Your task to perform on an android device: toggle airplane mode Image 0: 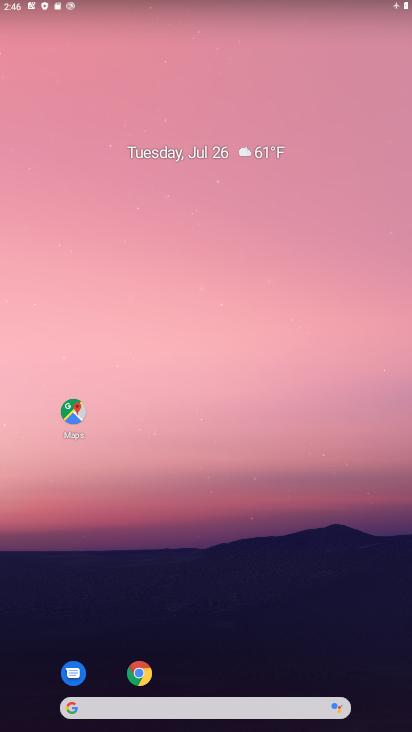
Step 0: drag from (204, 615) to (218, 167)
Your task to perform on an android device: toggle airplane mode Image 1: 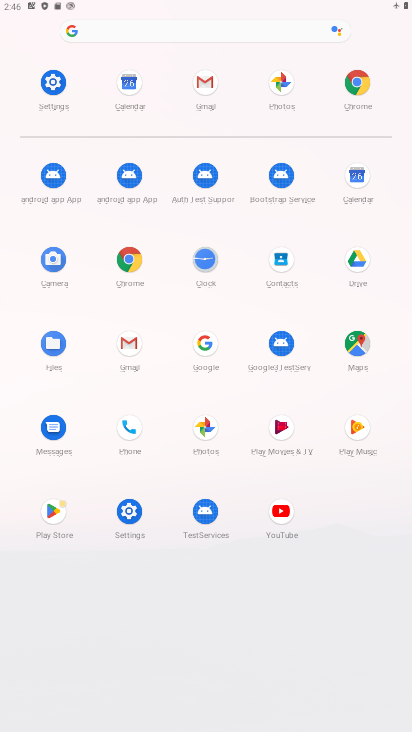
Step 1: click (121, 518)
Your task to perform on an android device: toggle airplane mode Image 2: 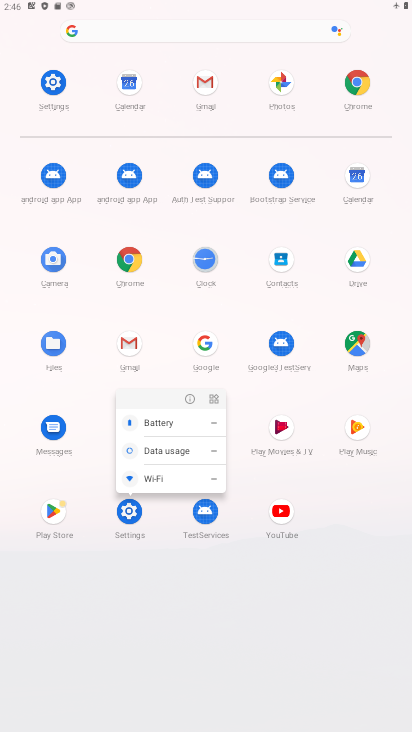
Step 2: click (195, 401)
Your task to perform on an android device: toggle airplane mode Image 3: 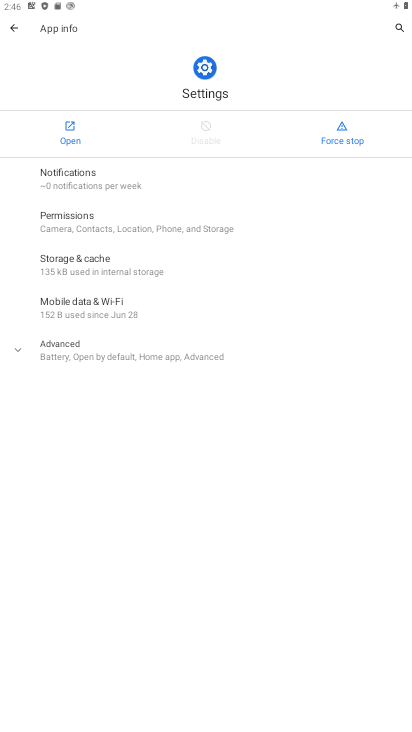
Step 3: click (71, 134)
Your task to perform on an android device: toggle airplane mode Image 4: 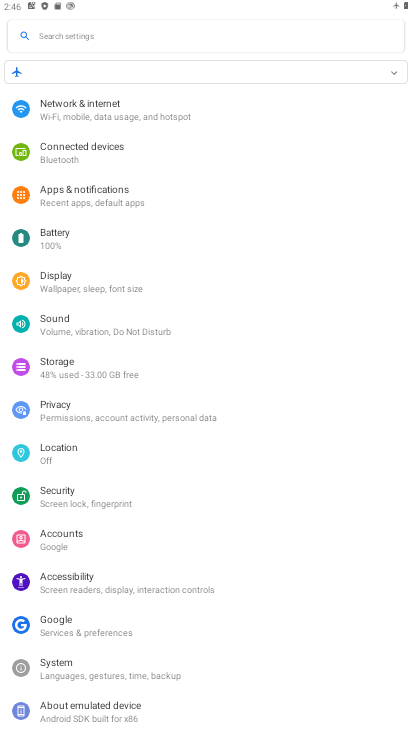
Step 4: click (110, 106)
Your task to perform on an android device: toggle airplane mode Image 5: 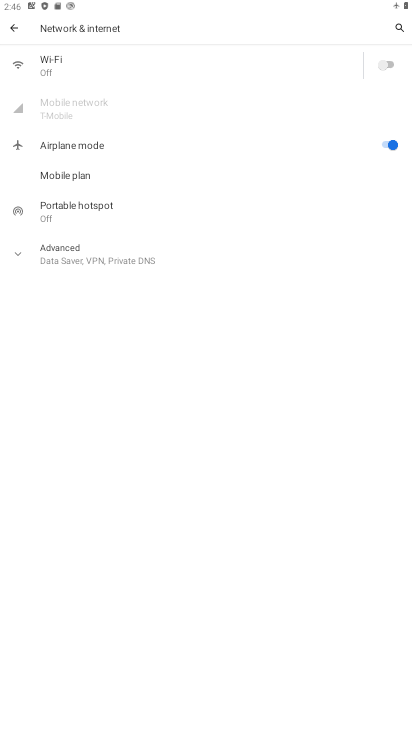
Step 5: click (387, 143)
Your task to perform on an android device: toggle airplane mode Image 6: 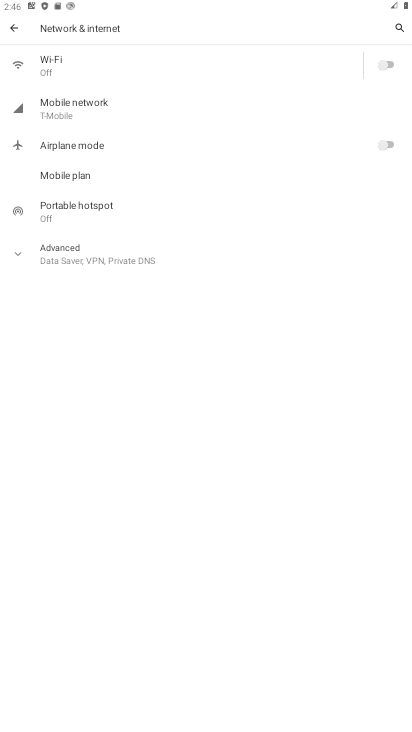
Step 6: task complete